Your task to perform on an android device: change the clock display to analog Image 0: 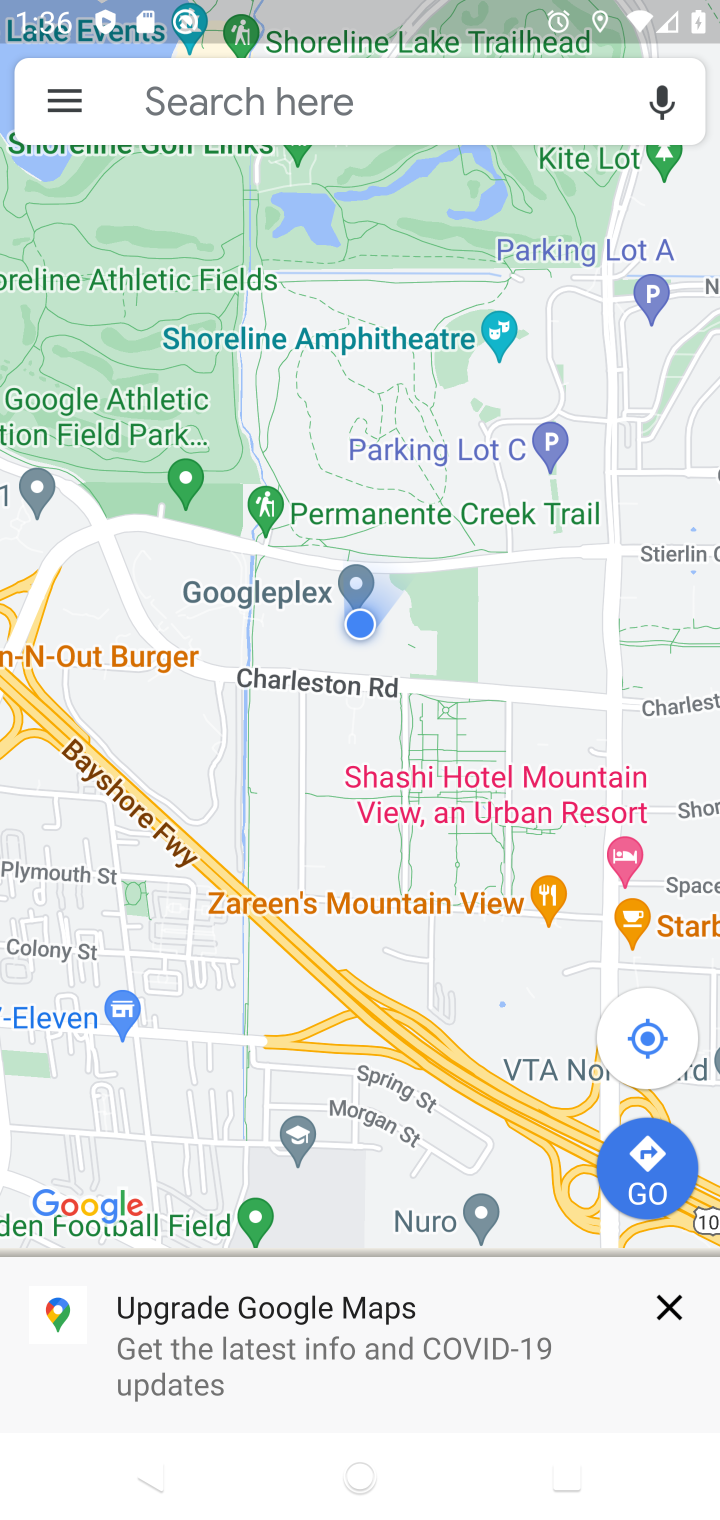
Step 0: press home button
Your task to perform on an android device: change the clock display to analog Image 1: 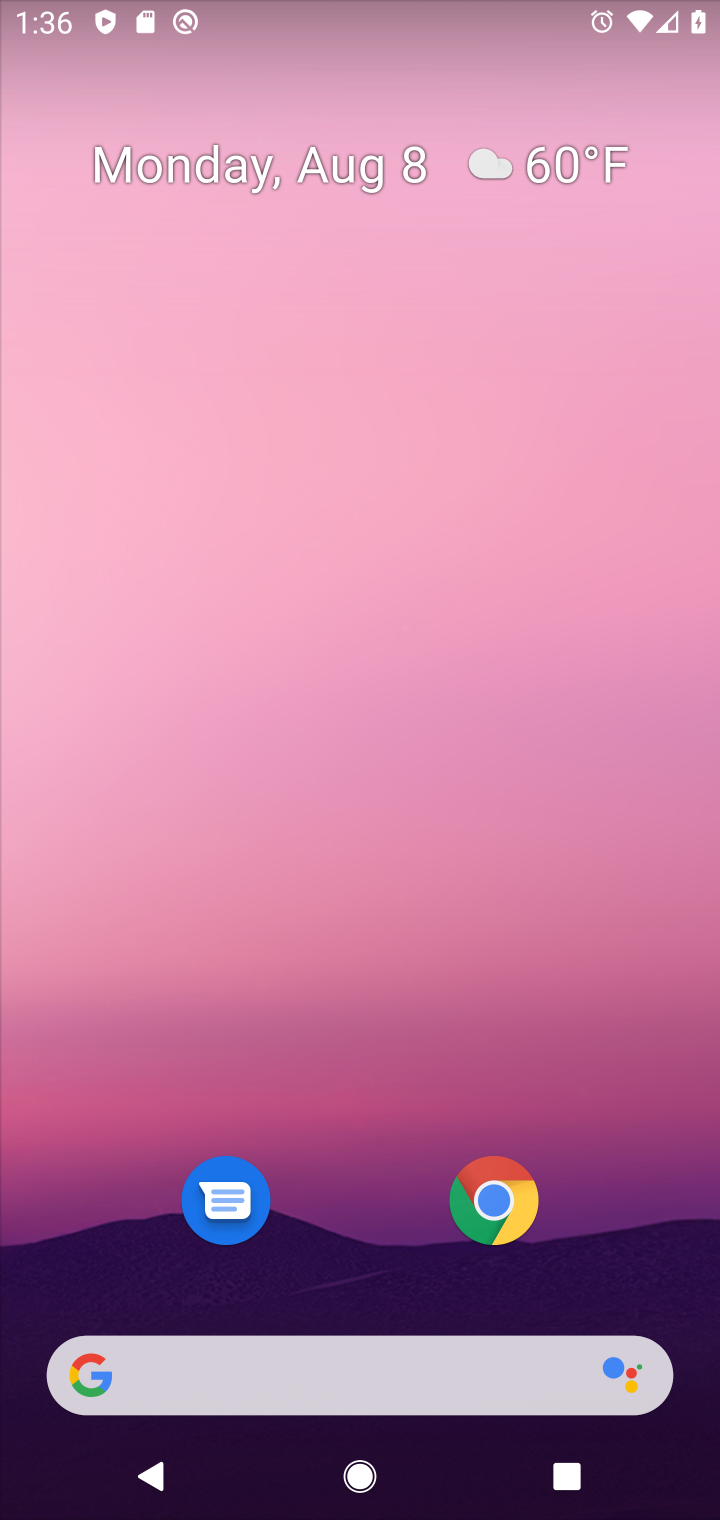
Step 1: drag from (390, 1302) to (543, 173)
Your task to perform on an android device: change the clock display to analog Image 2: 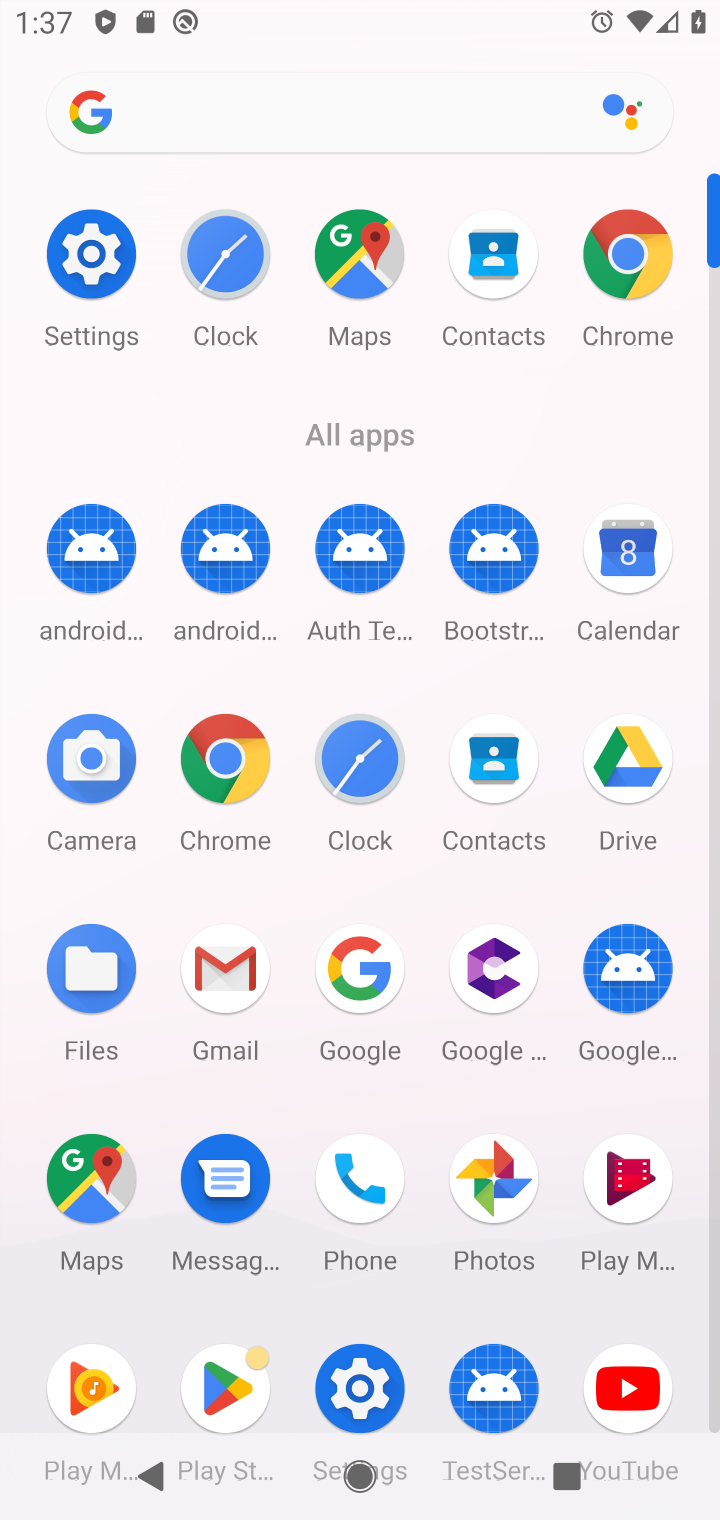
Step 2: click (224, 245)
Your task to perform on an android device: change the clock display to analog Image 3: 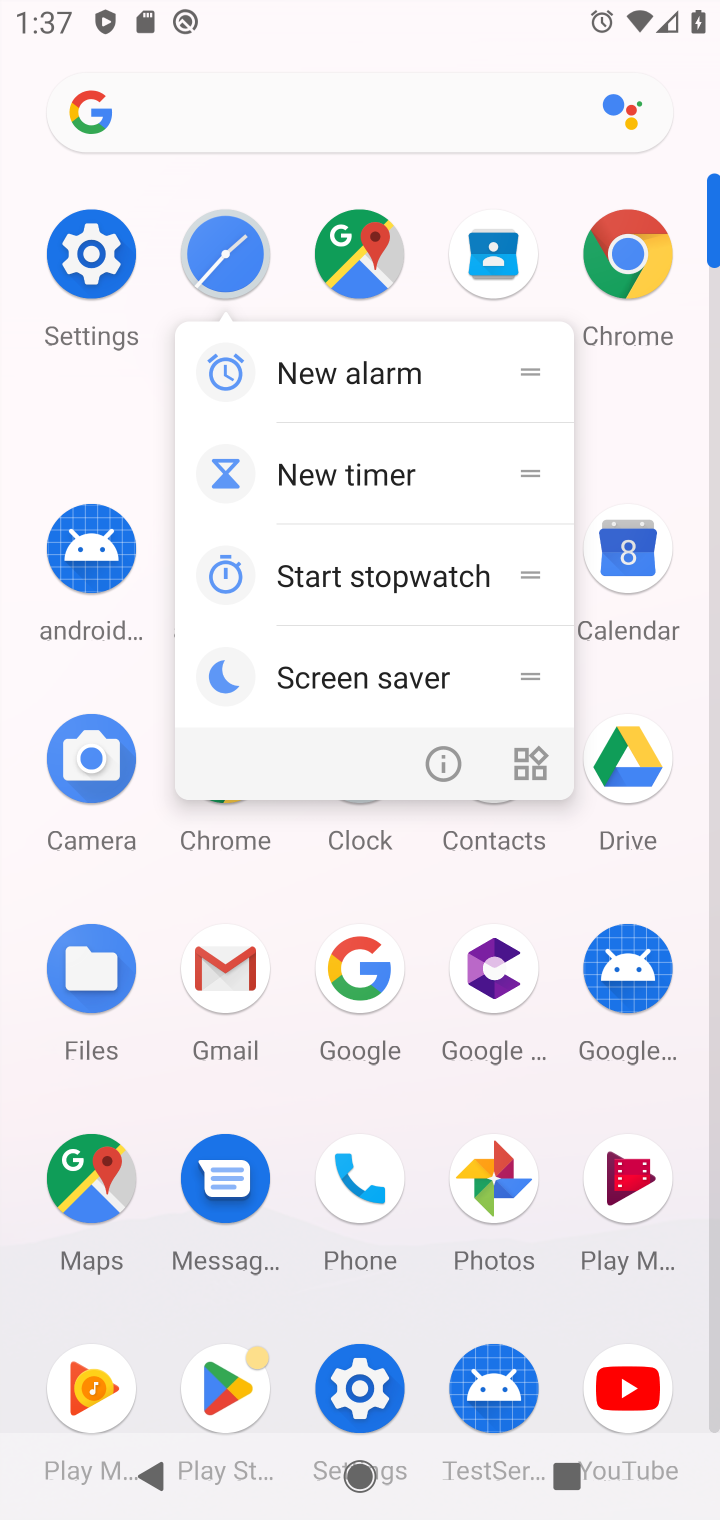
Step 3: click (226, 236)
Your task to perform on an android device: change the clock display to analog Image 4: 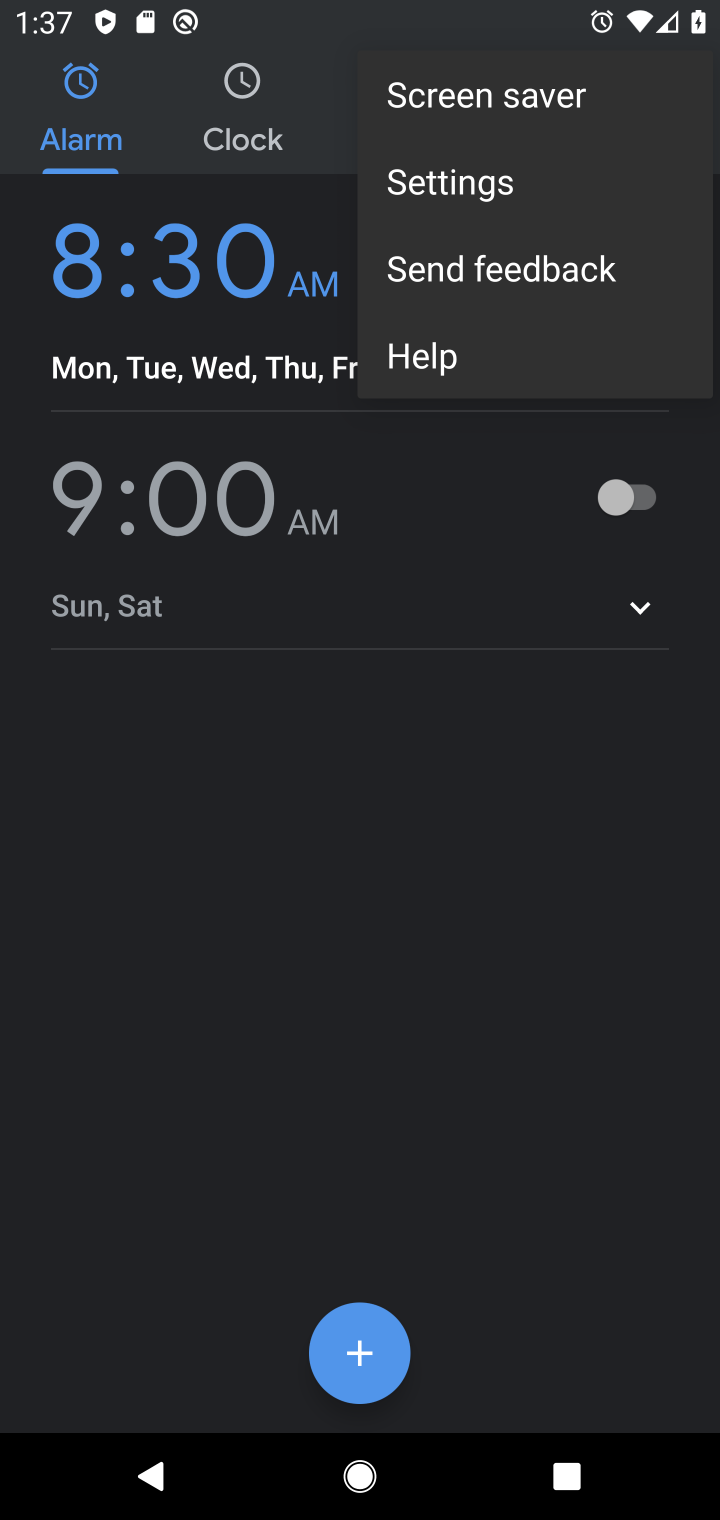
Step 4: click (501, 173)
Your task to perform on an android device: change the clock display to analog Image 5: 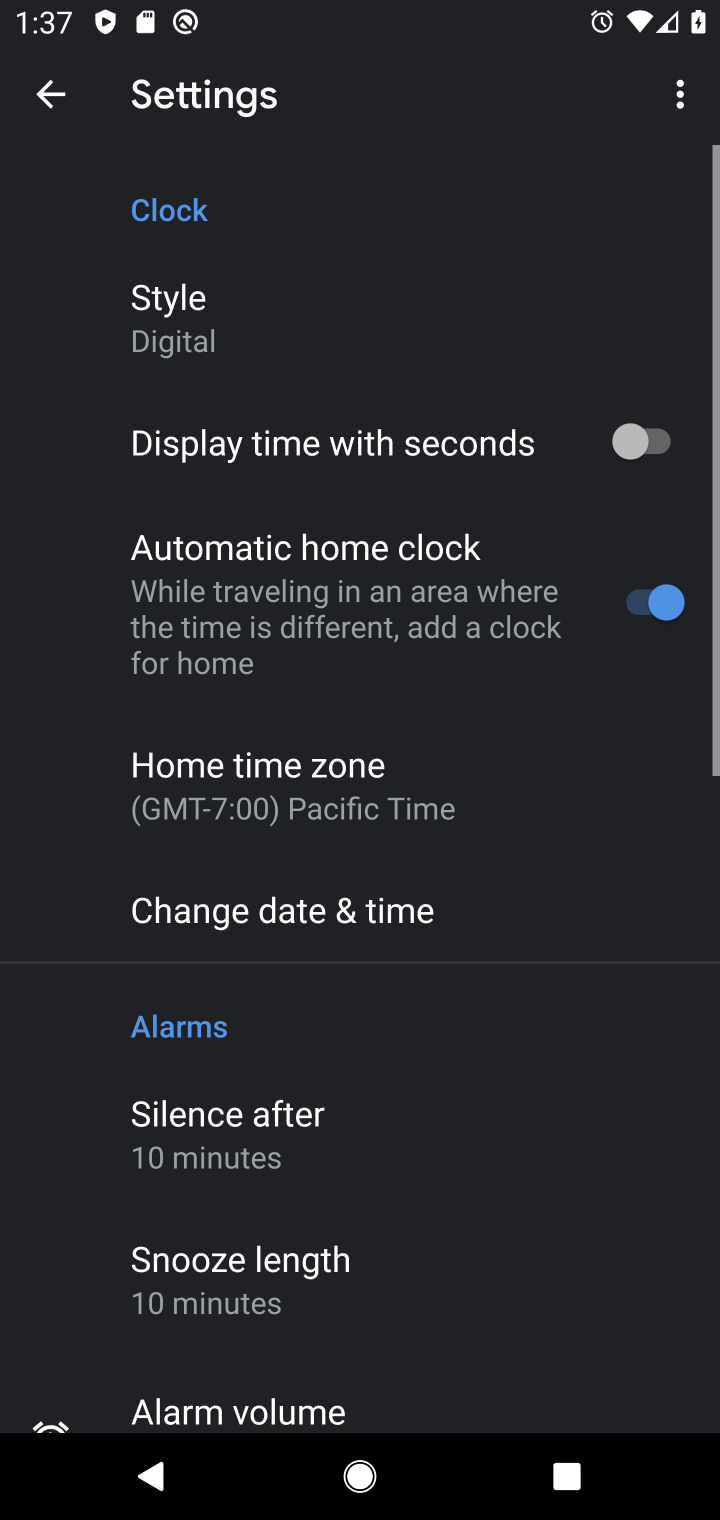
Step 5: click (279, 345)
Your task to perform on an android device: change the clock display to analog Image 6: 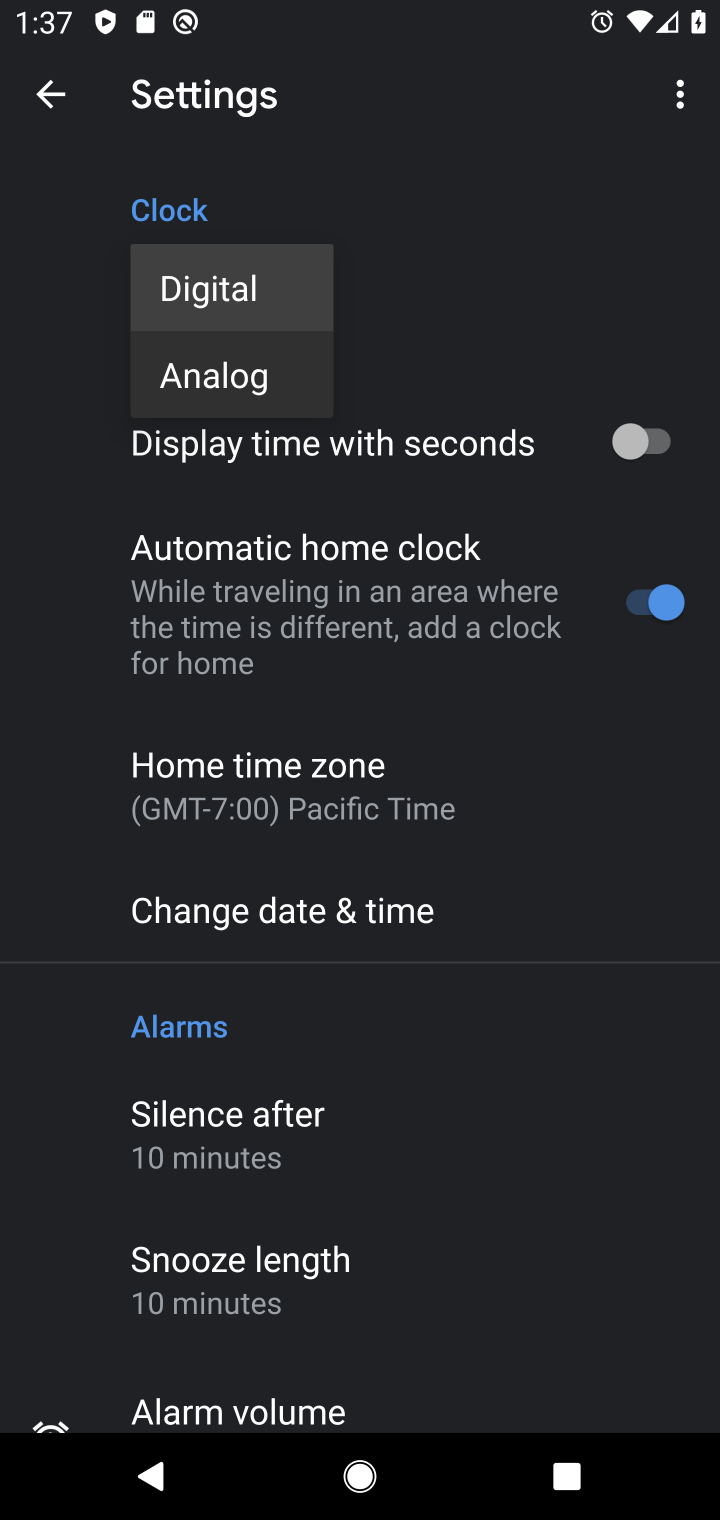
Step 6: click (254, 384)
Your task to perform on an android device: change the clock display to analog Image 7: 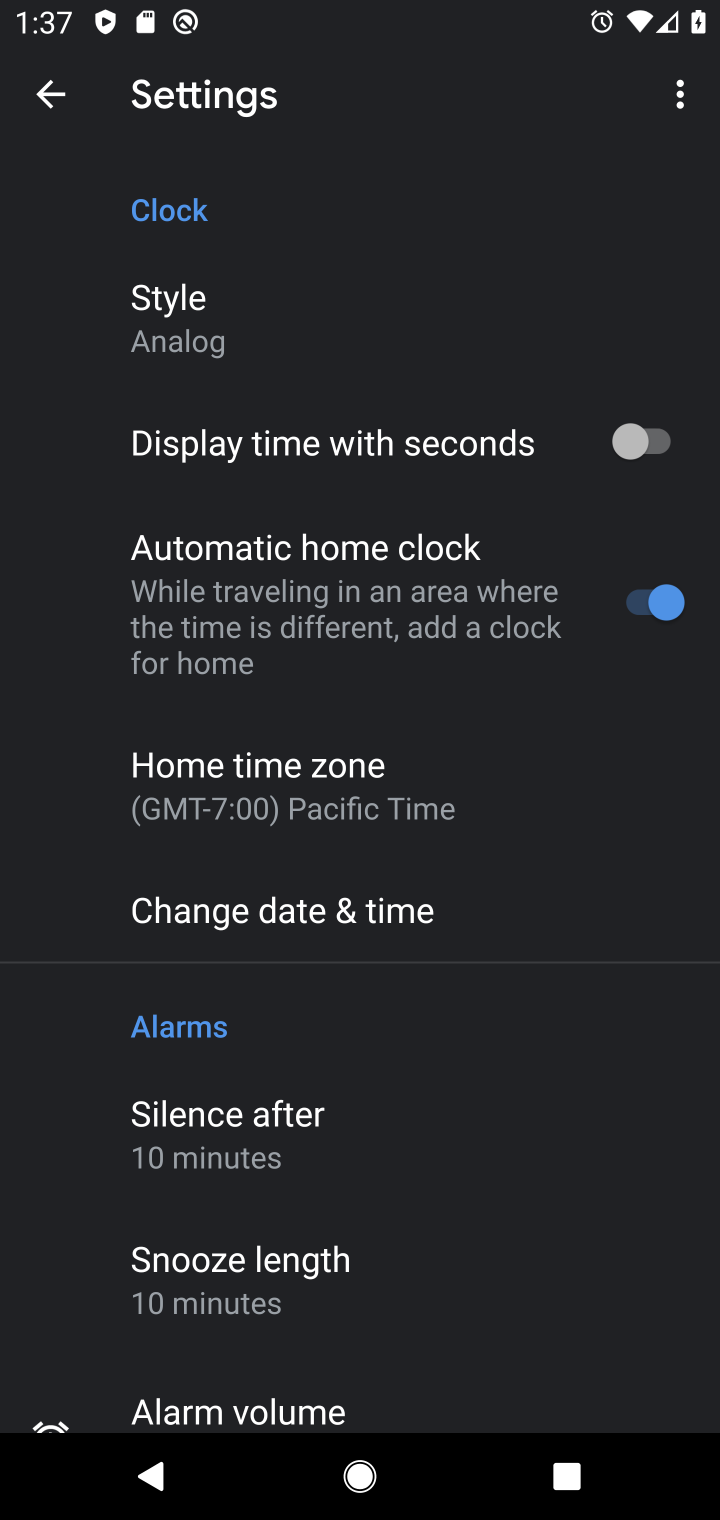
Step 7: task complete